Your task to perform on an android device: delete the emails in spam in the gmail app Image 0: 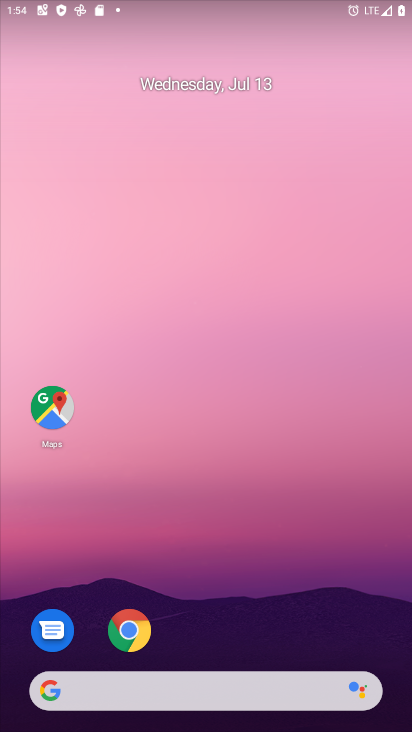
Step 0: drag from (387, 643) to (311, 219)
Your task to perform on an android device: delete the emails in spam in the gmail app Image 1: 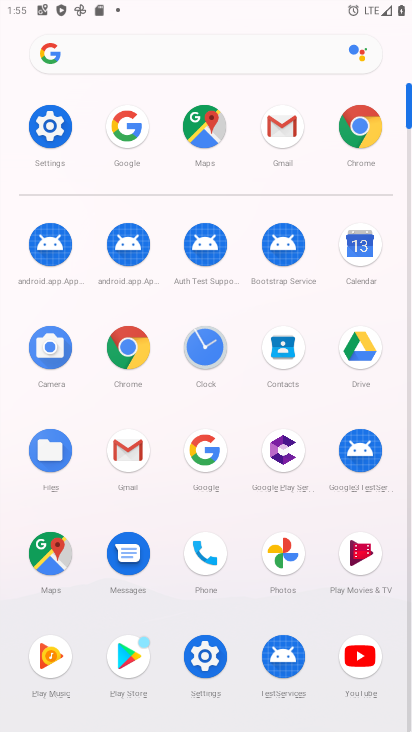
Step 1: click (121, 456)
Your task to perform on an android device: delete the emails in spam in the gmail app Image 2: 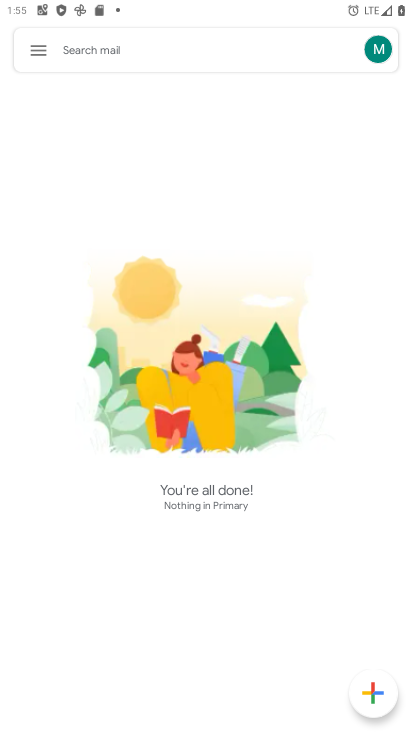
Step 2: task complete